Your task to perform on an android device: turn on translation in the chrome app Image 0: 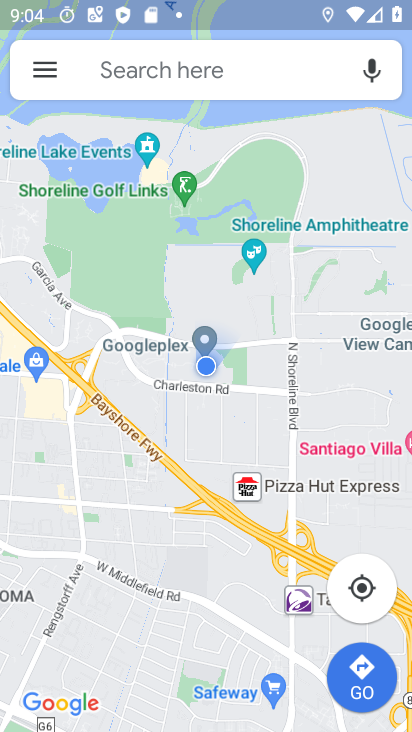
Step 0: press home button
Your task to perform on an android device: turn on translation in the chrome app Image 1: 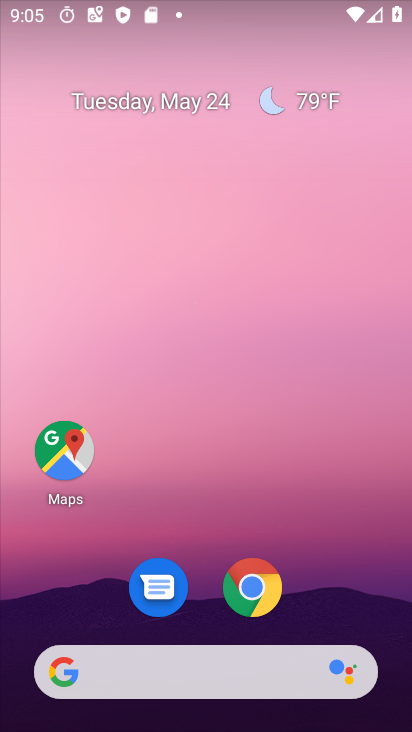
Step 1: click (252, 591)
Your task to perform on an android device: turn on translation in the chrome app Image 2: 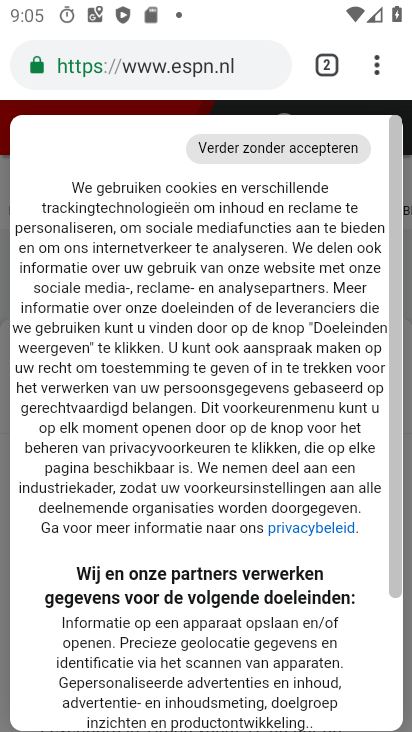
Step 2: click (377, 62)
Your task to perform on an android device: turn on translation in the chrome app Image 3: 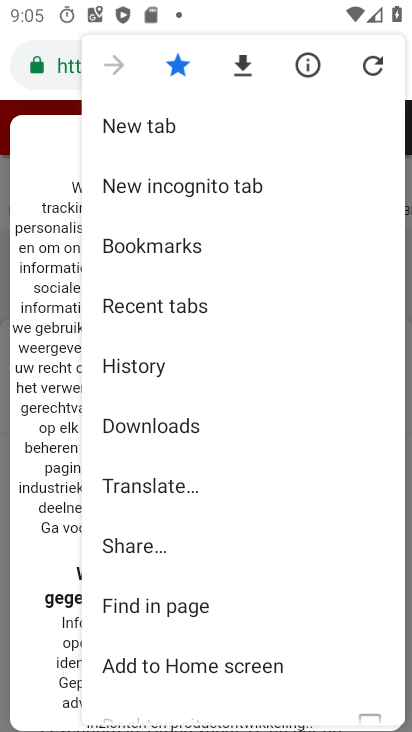
Step 3: drag from (235, 528) to (274, 425)
Your task to perform on an android device: turn on translation in the chrome app Image 4: 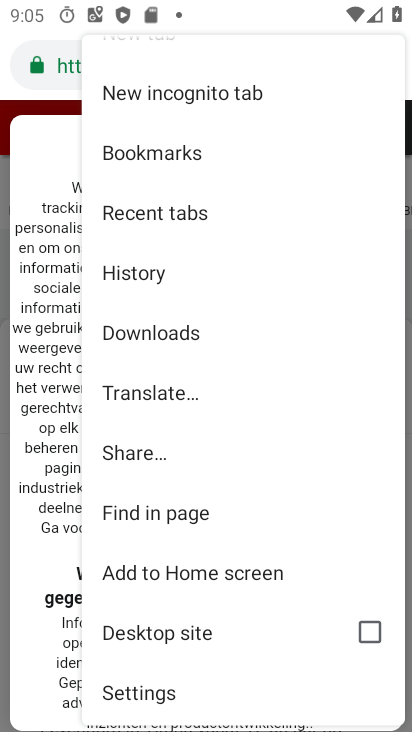
Step 4: drag from (200, 536) to (268, 448)
Your task to perform on an android device: turn on translation in the chrome app Image 5: 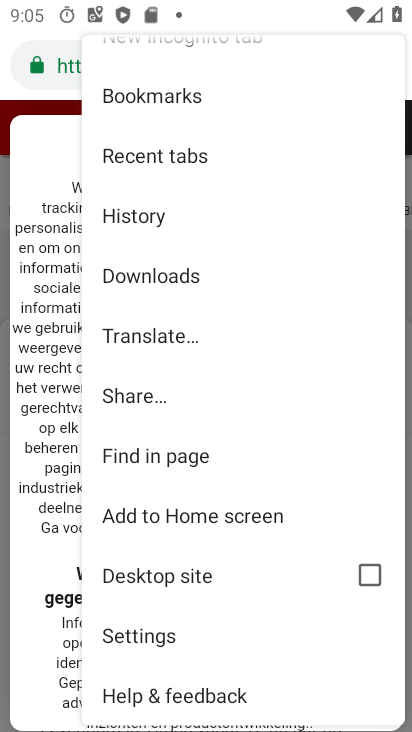
Step 5: drag from (230, 556) to (286, 458)
Your task to perform on an android device: turn on translation in the chrome app Image 6: 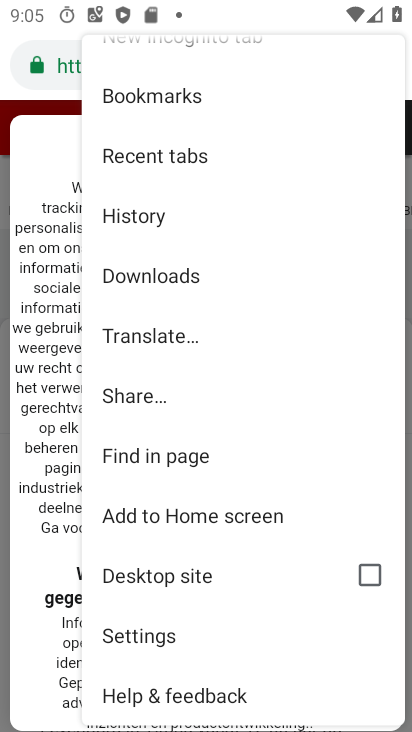
Step 6: click (158, 636)
Your task to perform on an android device: turn on translation in the chrome app Image 7: 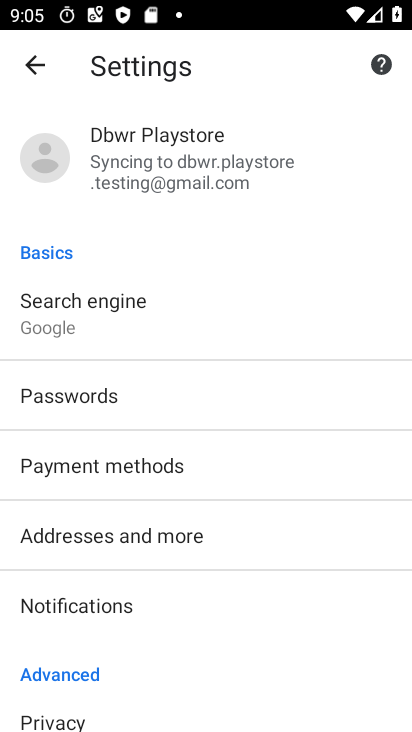
Step 7: drag from (174, 605) to (241, 514)
Your task to perform on an android device: turn on translation in the chrome app Image 8: 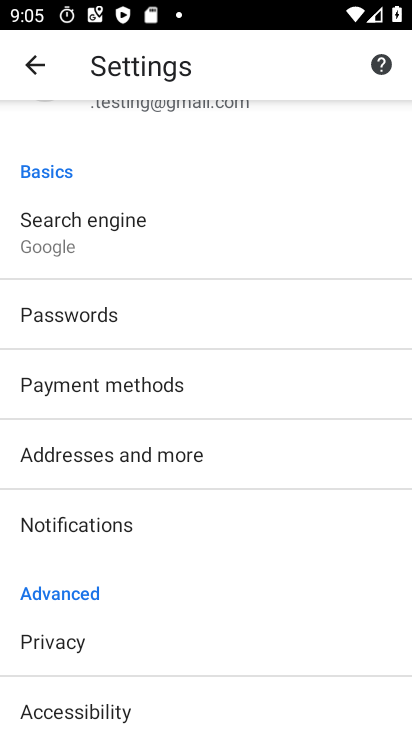
Step 8: drag from (151, 601) to (234, 497)
Your task to perform on an android device: turn on translation in the chrome app Image 9: 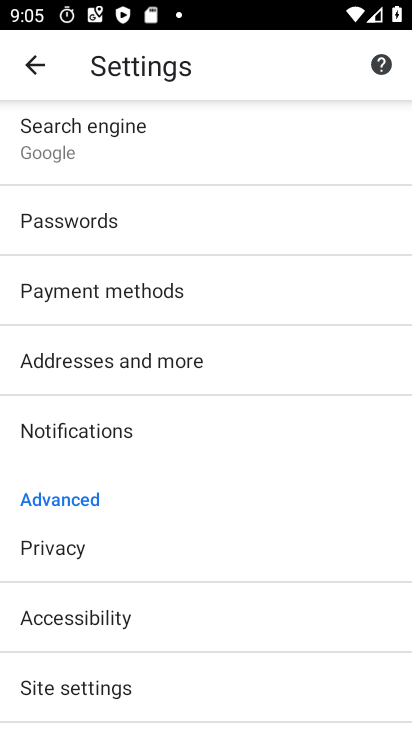
Step 9: drag from (153, 563) to (218, 474)
Your task to perform on an android device: turn on translation in the chrome app Image 10: 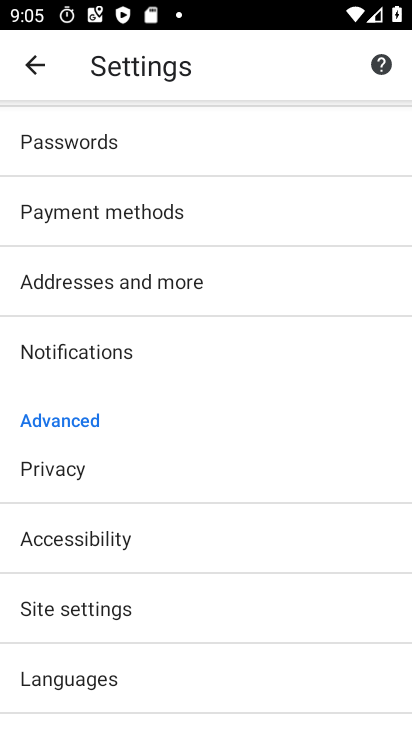
Step 10: drag from (153, 602) to (229, 503)
Your task to perform on an android device: turn on translation in the chrome app Image 11: 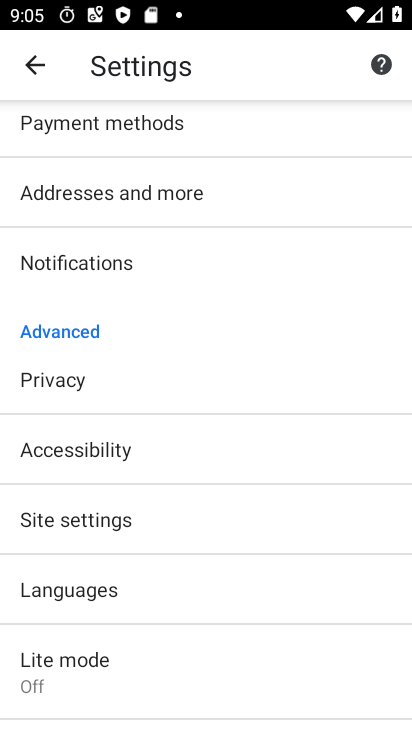
Step 11: click (104, 586)
Your task to perform on an android device: turn on translation in the chrome app Image 12: 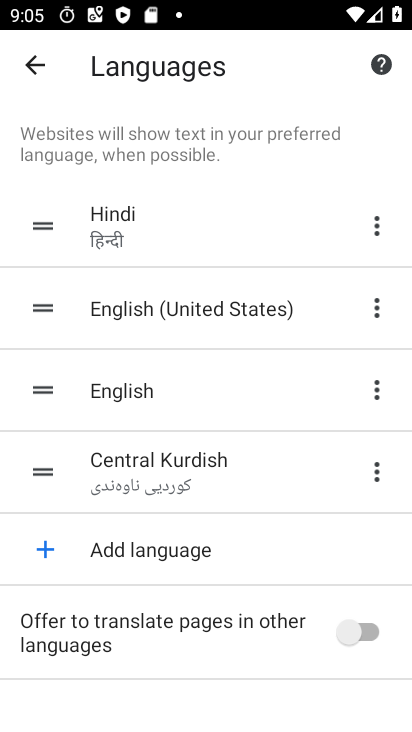
Step 12: click (360, 633)
Your task to perform on an android device: turn on translation in the chrome app Image 13: 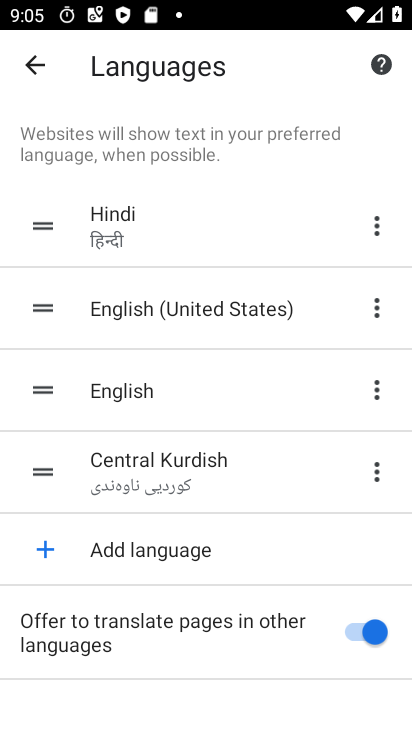
Step 13: task complete